Your task to perform on an android device: Search for the best gaming mouse on Best Buy. Image 0: 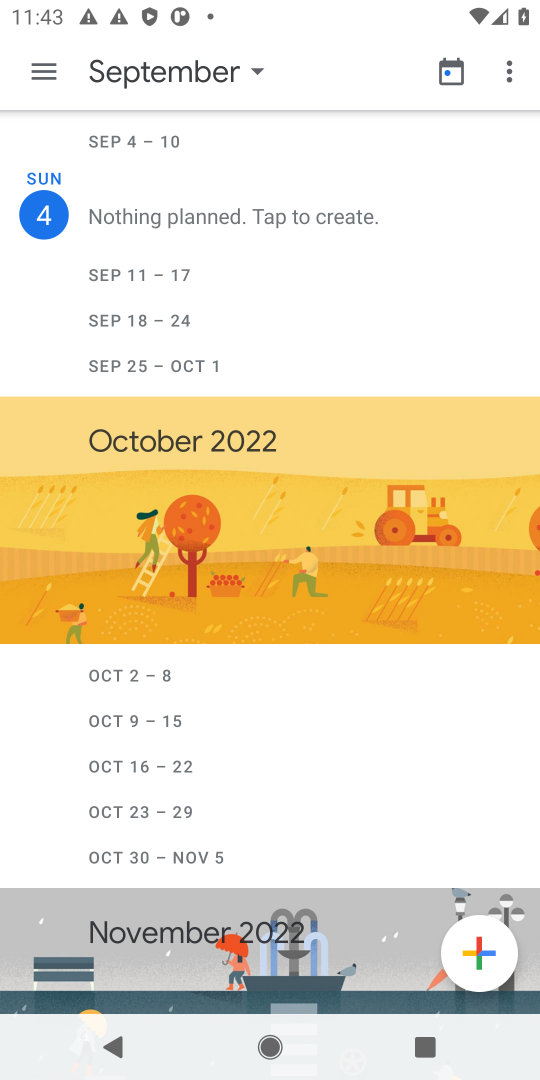
Step 0: press home button
Your task to perform on an android device: Search for the best gaming mouse on Best Buy. Image 1: 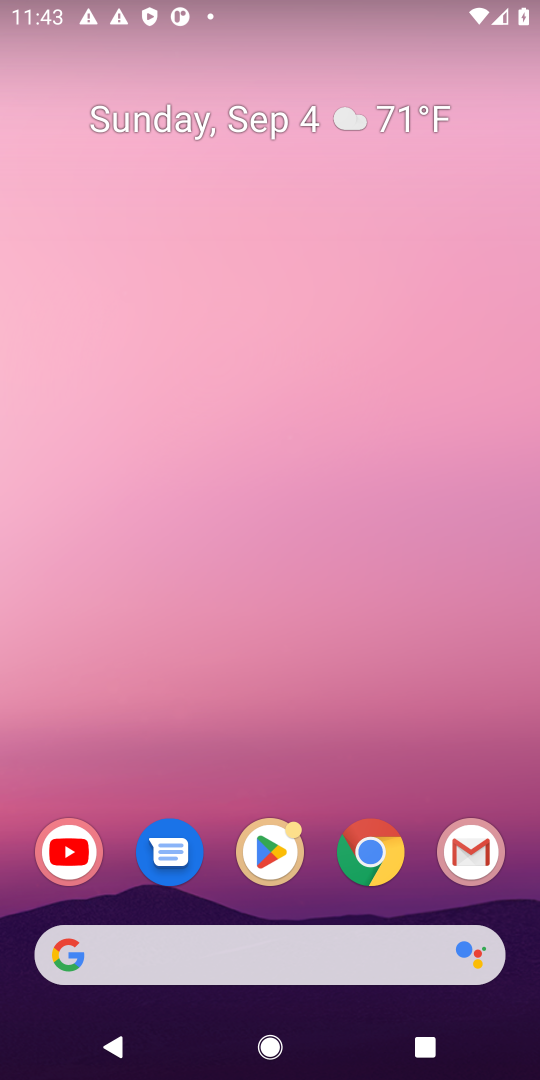
Step 1: click (368, 855)
Your task to perform on an android device: Search for the best gaming mouse on Best Buy. Image 2: 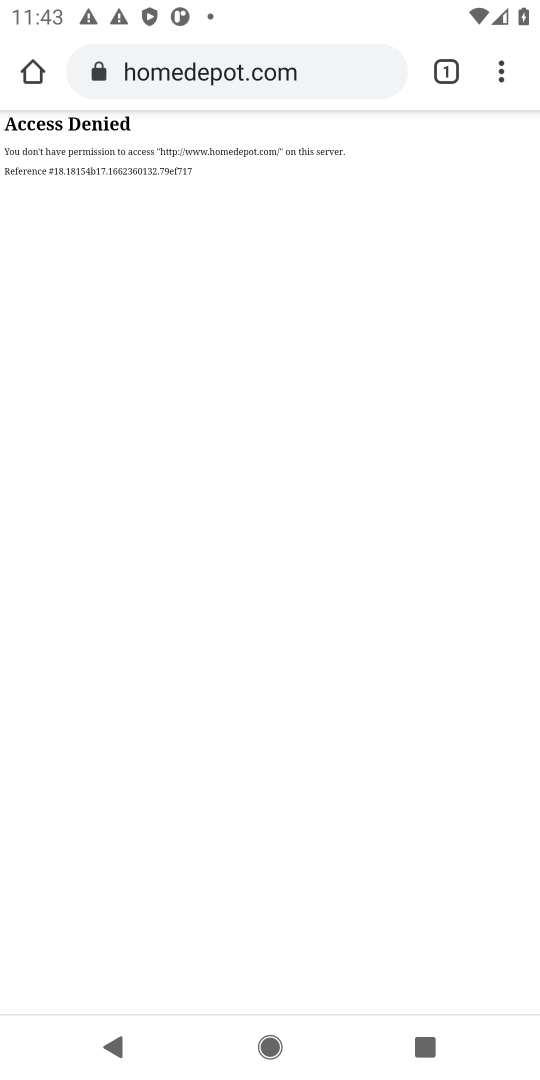
Step 2: click (324, 62)
Your task to perform on an android device: Search for the best gaming mouse on Best Buy. Image 3: 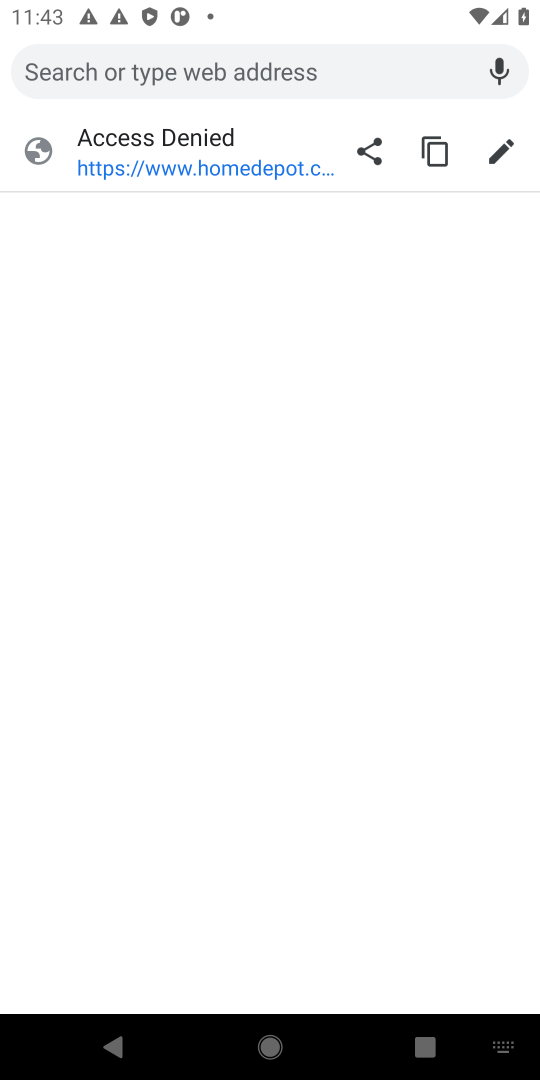
Step 3: type "Best Buy"
Your task to perform on an android device: Search for the best gaming mouse on Best Buy. Image 4: 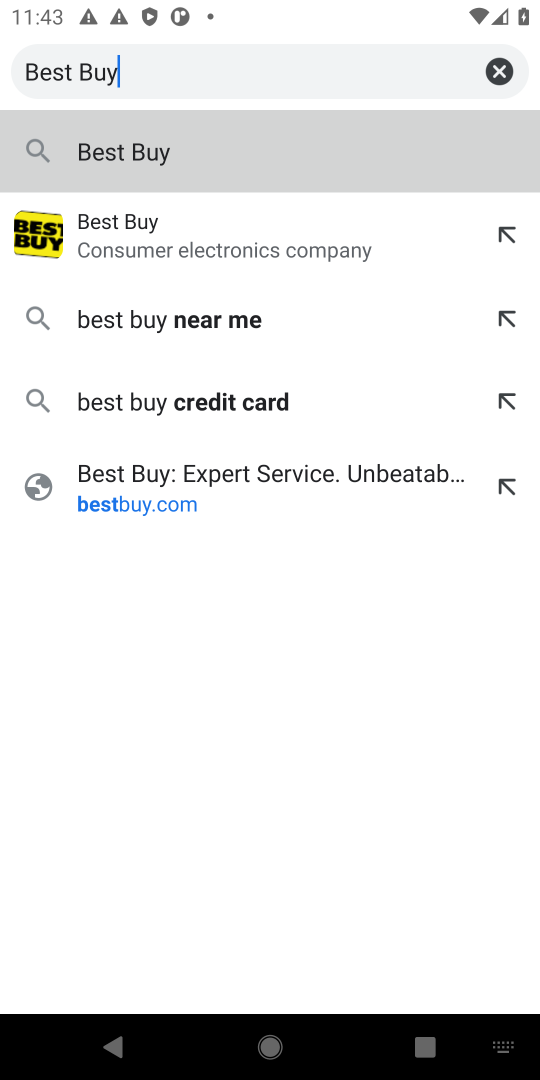
Step 4: click (123, 234)
Your task to perform on an android device: Search for the best gaming mouse on Best Buy. Image 5: 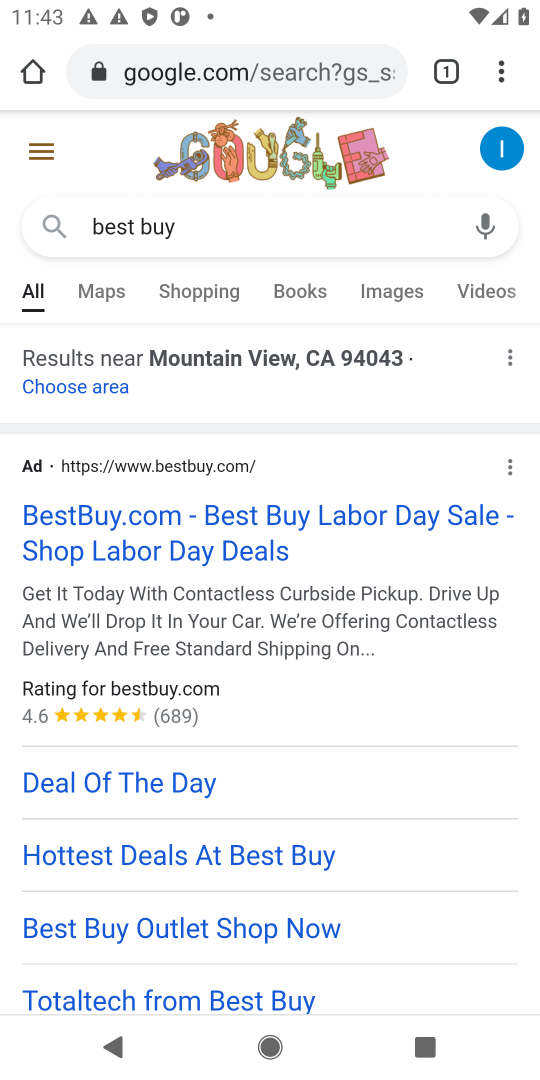
Step 5: click (107, 520)
Your task to perform on an android device: Search for the best gaming mouse on Best Buy. Image 6: 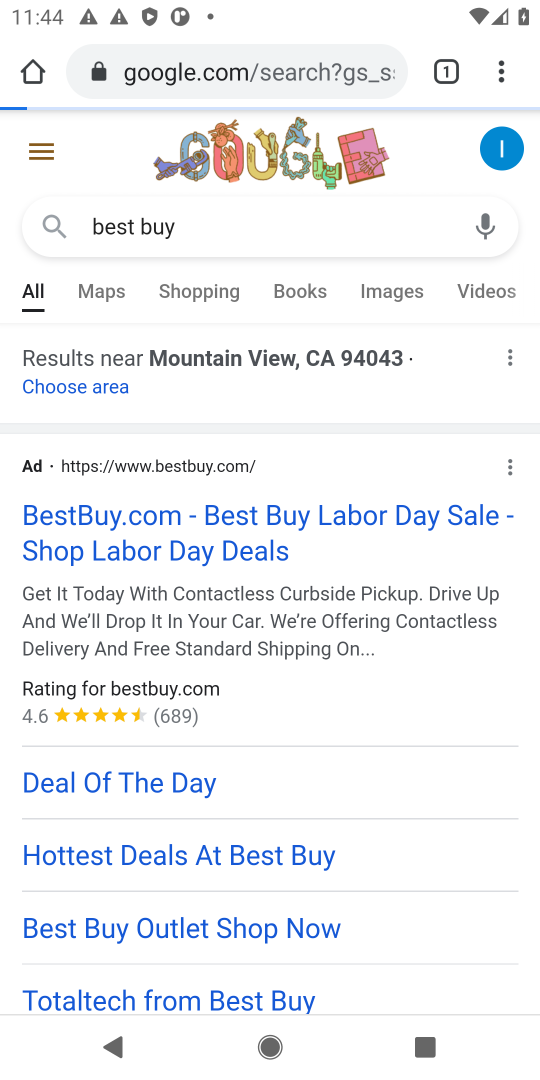
Step 6: click (147, 525)
Your task to perform on an android device: Search for the best gaming mouse on Best Buy. Image 7: 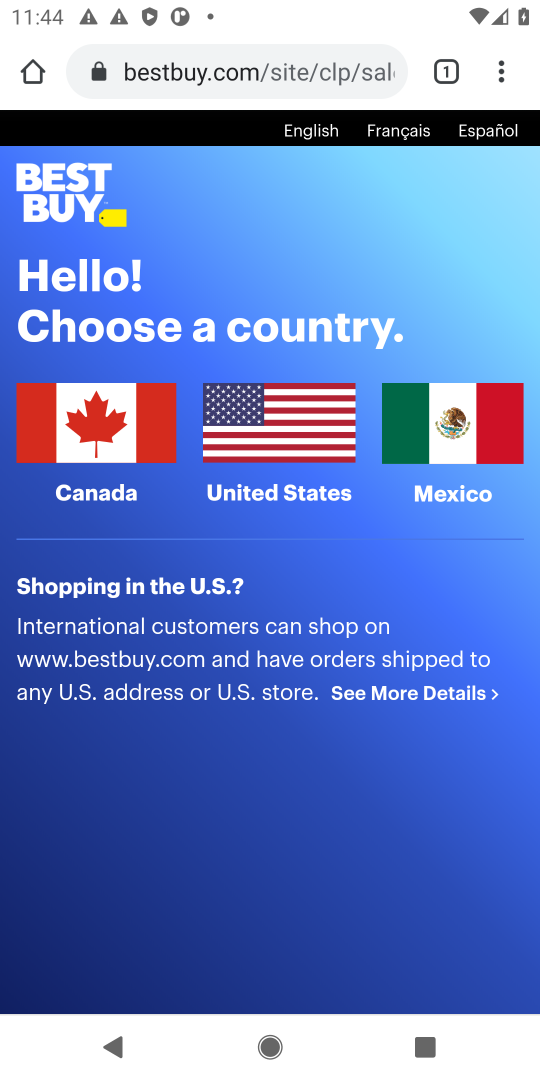
Step 7: click (275, 421)
Your task to perform on an android device: Search for the best gaming mouse on Best Buy. Image 8: 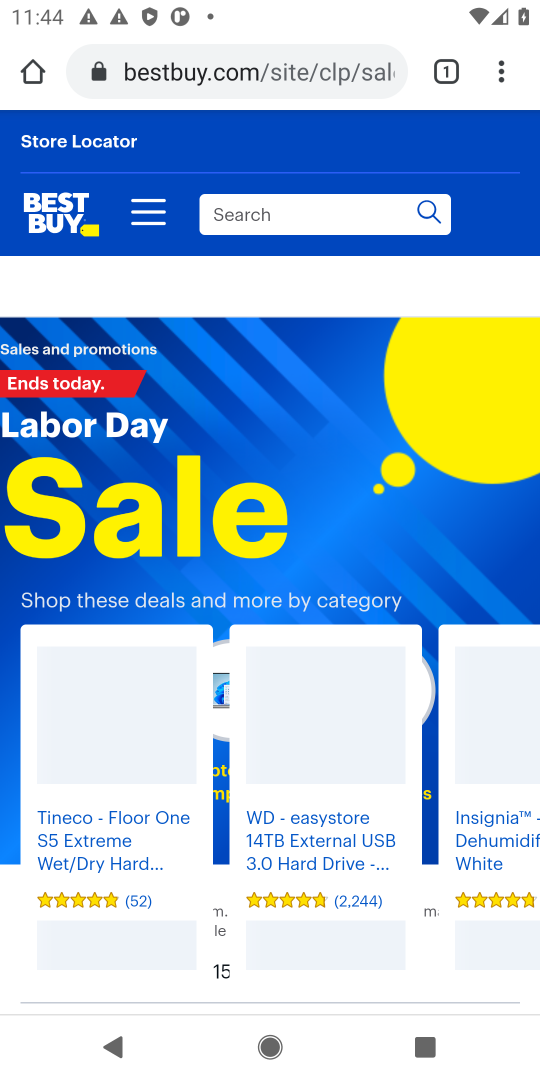
Step 8: click (245, 216)
Your task to perform on an android device: Search for the best gaming mouse on Best Buy. Image 9: 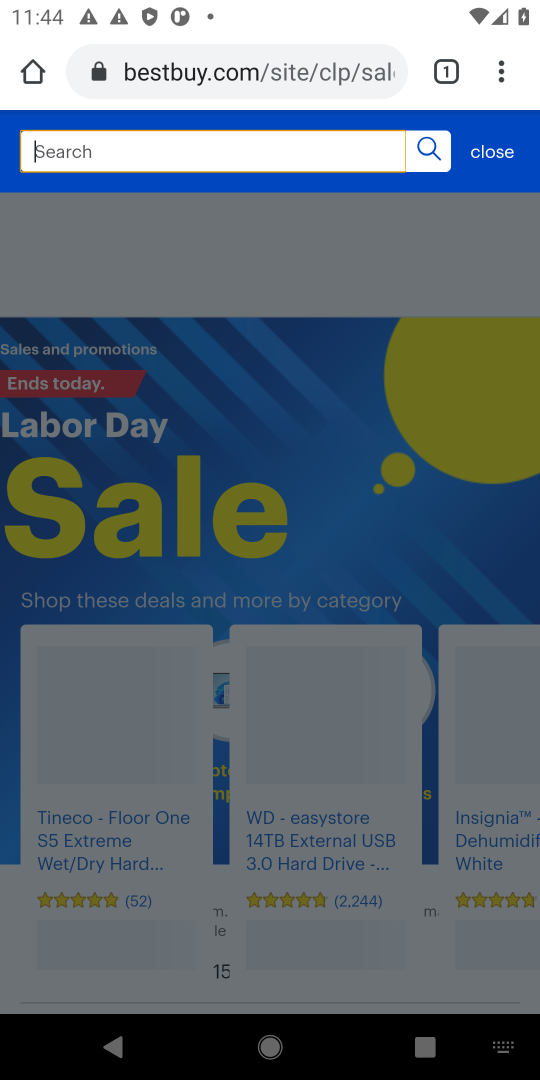
Step 9: type "best gaming mouse"
Your task to perform on an android device: Search for the best gaming mouse on Best Buy. Image 10: 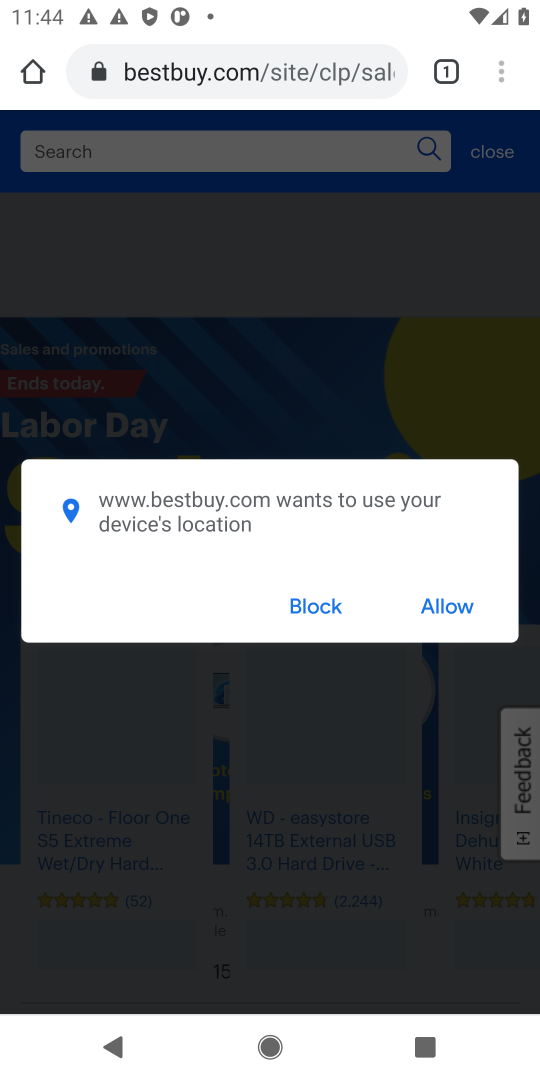
Step 10: click (447, 605)
Your task to perform on an android device: Search for the best gaming mouse on Best Buy. Image 11: 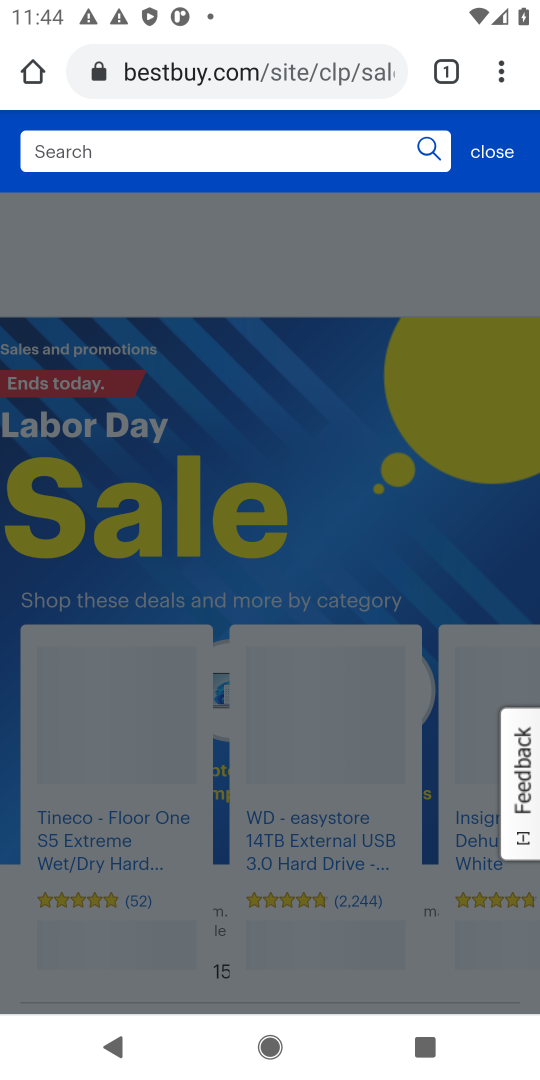
Step 11: click (88, 155)
Your task to perform on an android device: Search for the best gaming mouse on Best Buy. Image 12: 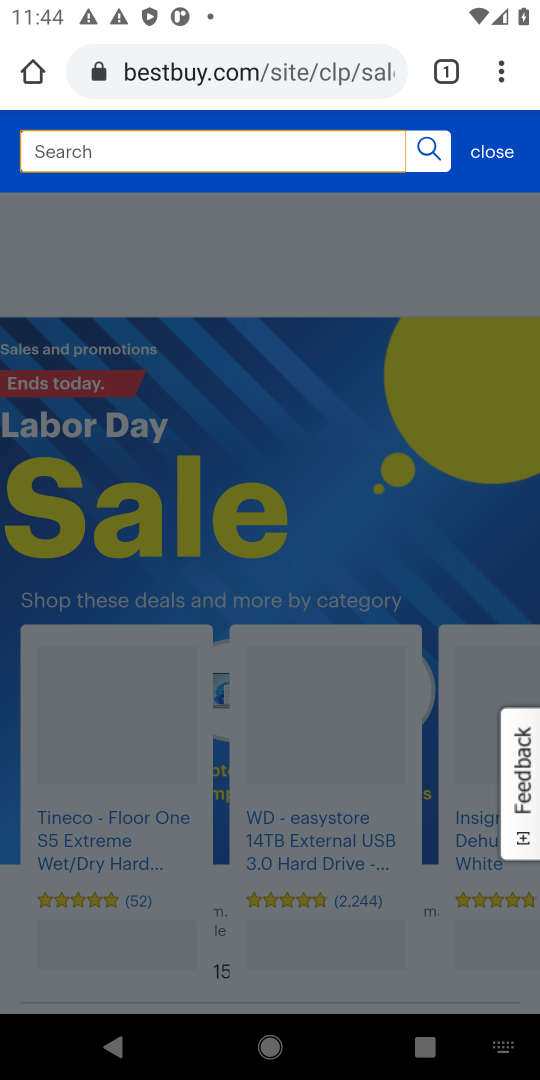
Step 12: type "best gaming mouse"
Your task to perform on an android device: Search for the best gaming mouse on Best Buy. Image 13: 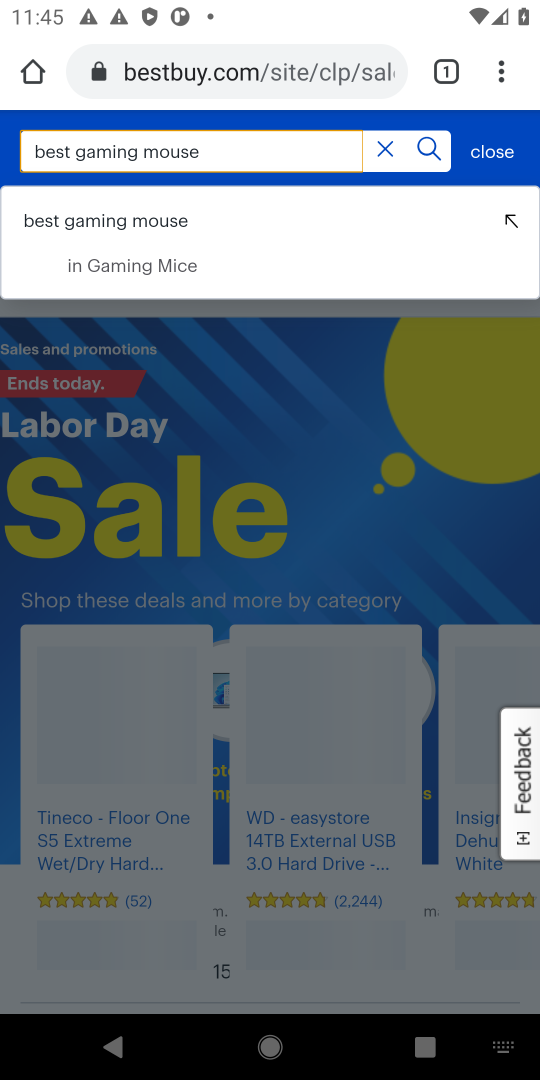
Step 13: click (423, 148)
Your task to perform on an android device: Search for the best gaming mouse on Best Buy. Image 14: 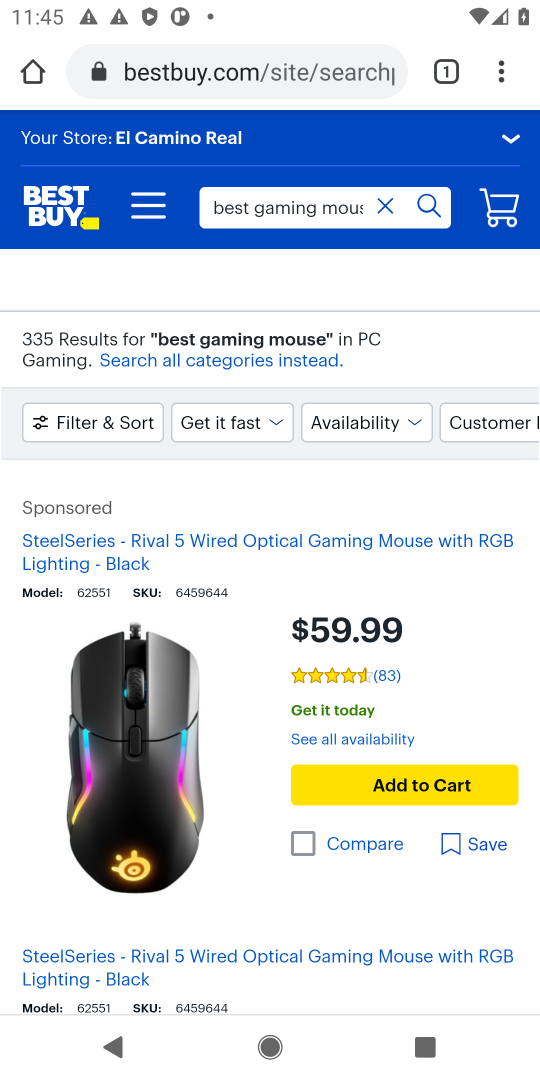
Step 14: drag from (260, 902) to (252, 373)
Your task to perform on an android device: Search for the best gaming mouse on Best Buy. Image 15: 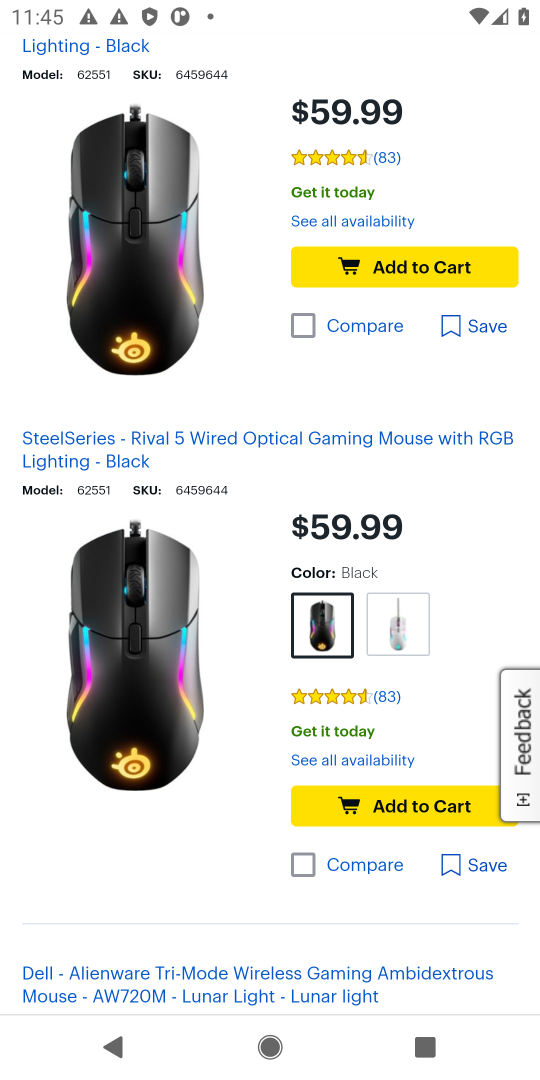
Step 15: drag from (284, 924) to (276, 398)
Your task to perform on an android device: Search for the best gaming mouse on Best Buy. Image 16: 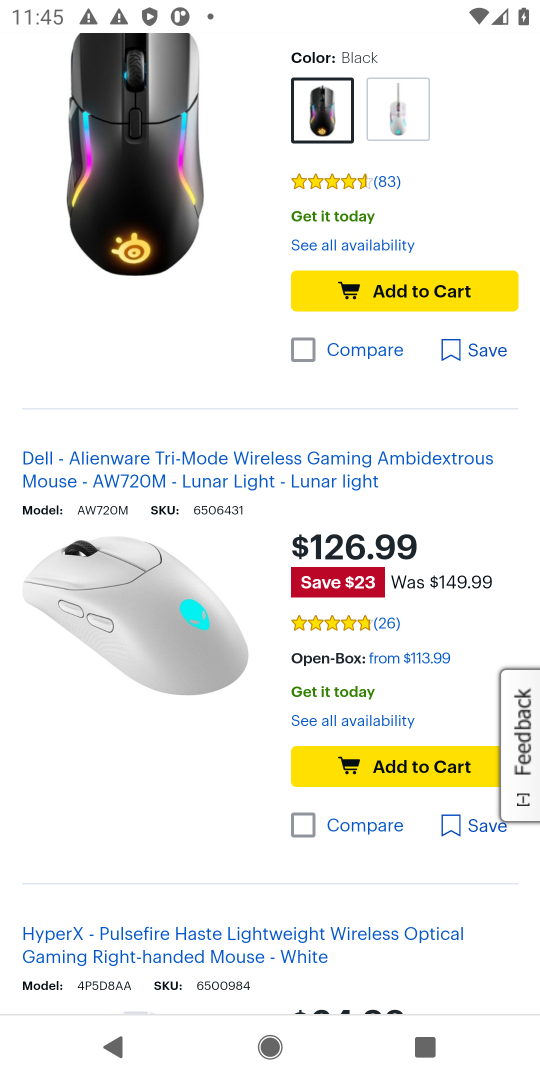
Step 16: drag from (276, 899) to (264, 349)
Your task to perform on an android device: Search for the best gaming mouse on Best Buy. Image 17: 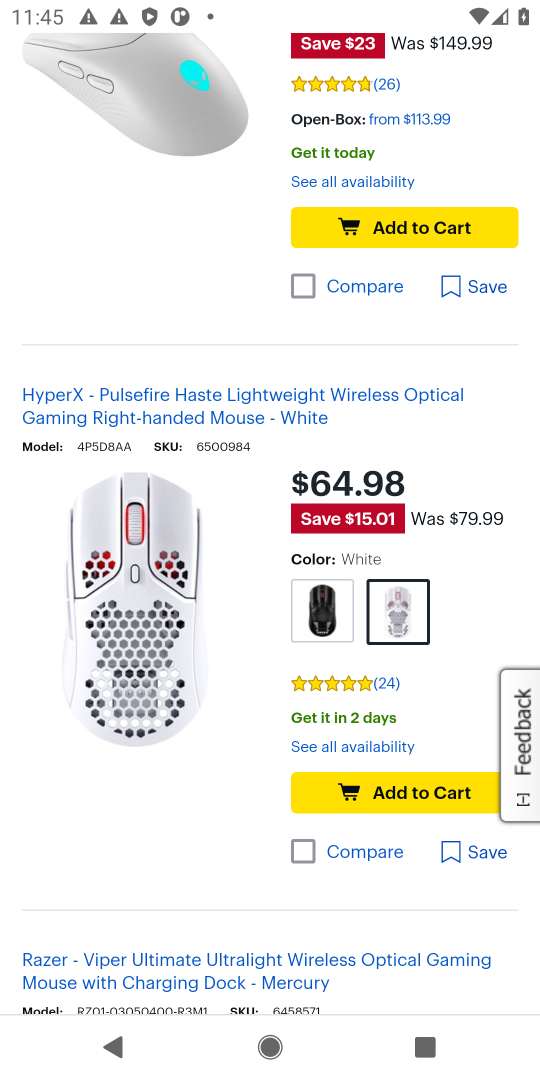
Step 17: drag from (271, 913) to (242, 227)
Your task to perform on an android device: Search for the best gaming mouse on Best Buy. Image 18: 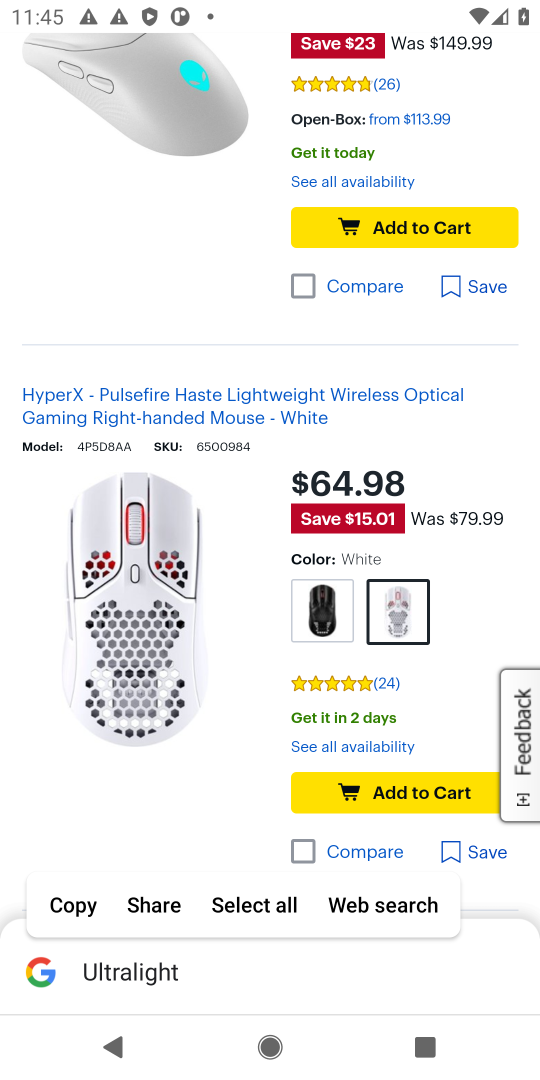
Step 18: click (258, 777)
Your task to perform on an android device: Search for the best gaming mouse on Best Buy. Image 19: 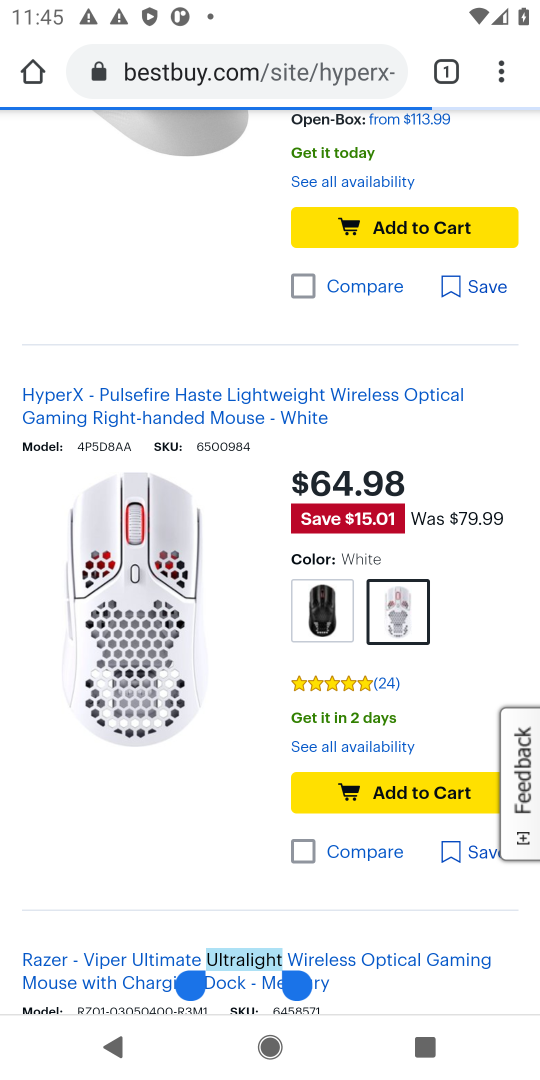
Step 19: task complete